Your task to perform on an android device: toggle wifi Image 0: 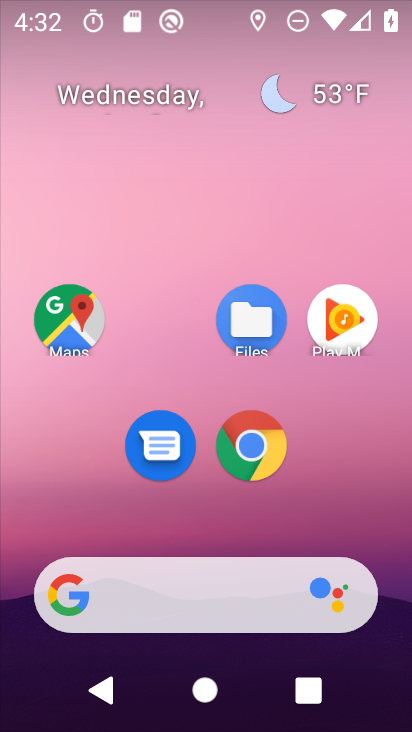
Step 0: drag from (239, 524) to (193, 219)
Your task to perform on an android device: toggle wifi Image 1: 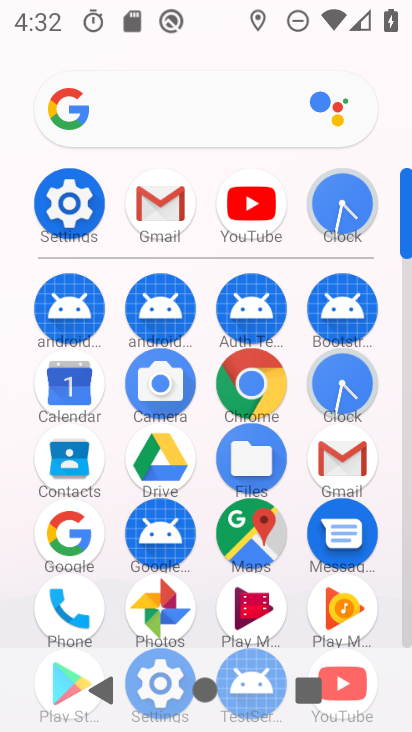
Step 1: click (64, 184)
Your task to perform on an android device: toggle wifi Image 2: 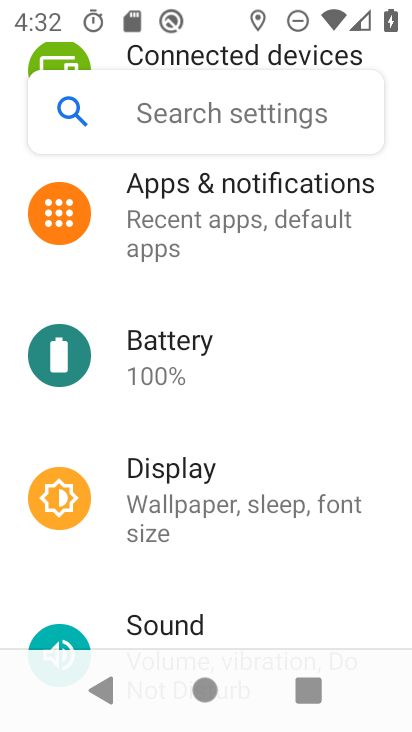
Step 2: drag from (286, 210) to (310, 557)
Your task to perform on an android device: toggle wifi Image 3: 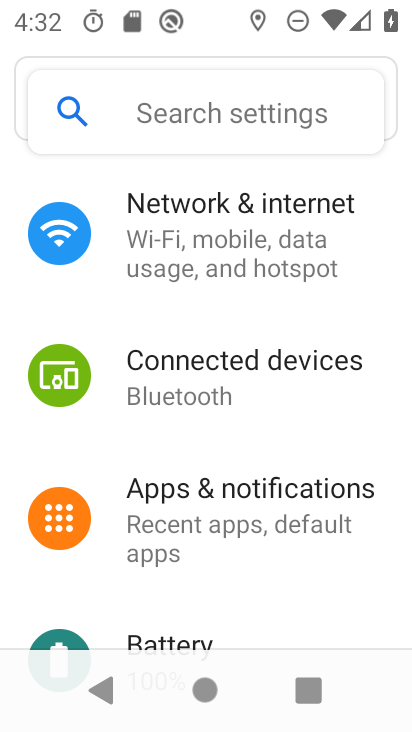
Step 3: click (264, 225)
Your task to perform on an android device: toggle wifi Image 4: 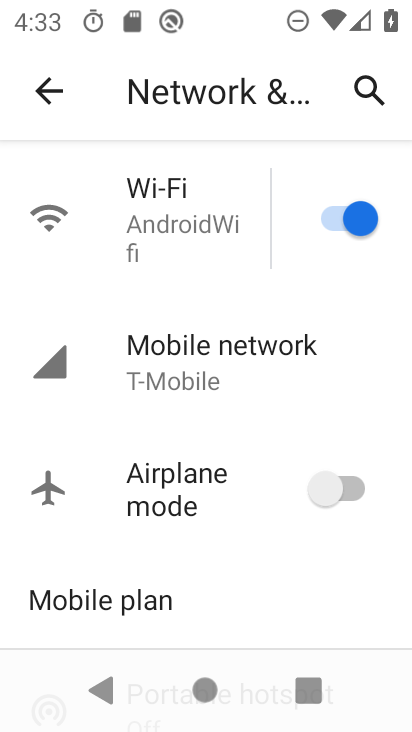
Step 4: click (337, 222)
Your task to perform on an android device: toggle wifi Image 5: 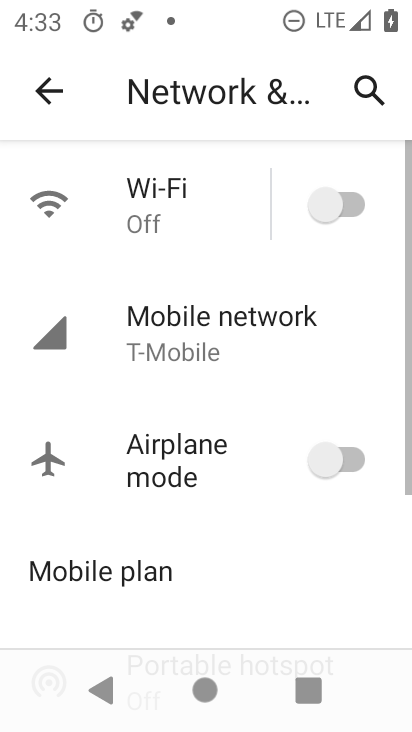
Step 5: task complete